Your task to perform on an android device: toggle sleep mode Image 0: 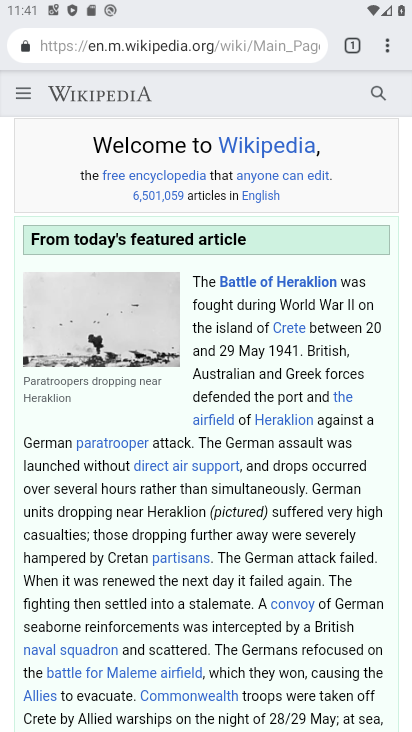
Step 0: press home button
Your task to perform on an android device: toggle sleep mode Image 1: 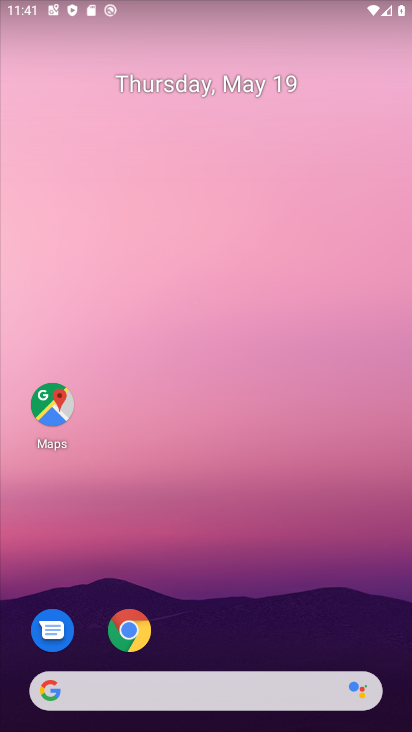
Step 1: drag from (254, 630) to (202, 176)
Your task to perform on an android device: toggle sleep mode Image 2: 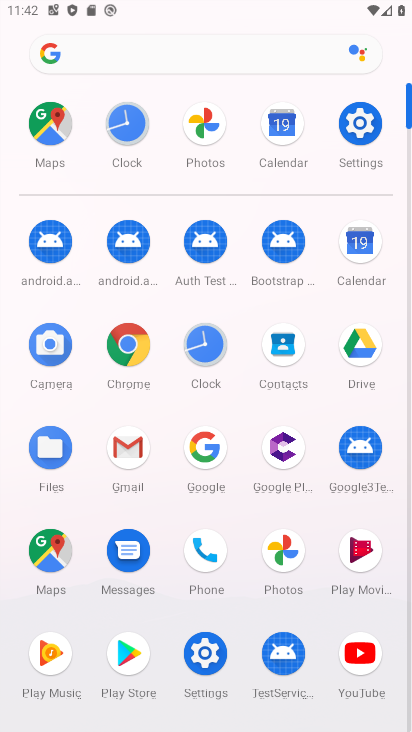
Step 2: click (359, 125)
Your task to perform on an android device: toggle sleep mode Image 3: 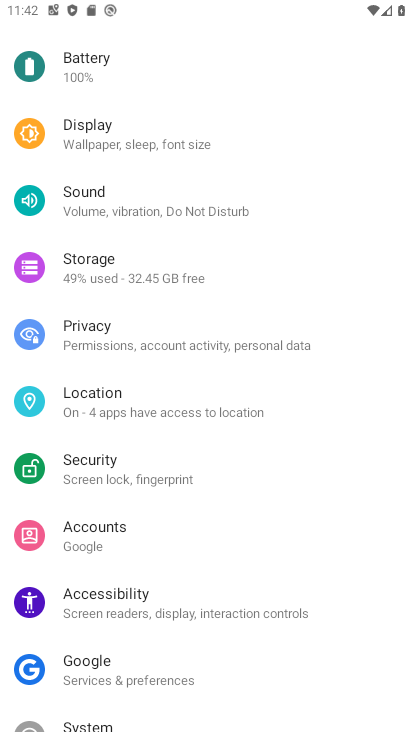
Step 3: drag from (148, 320) to (175, 402)
Your task to perform on an android device: toggle sleep mode Image 4: 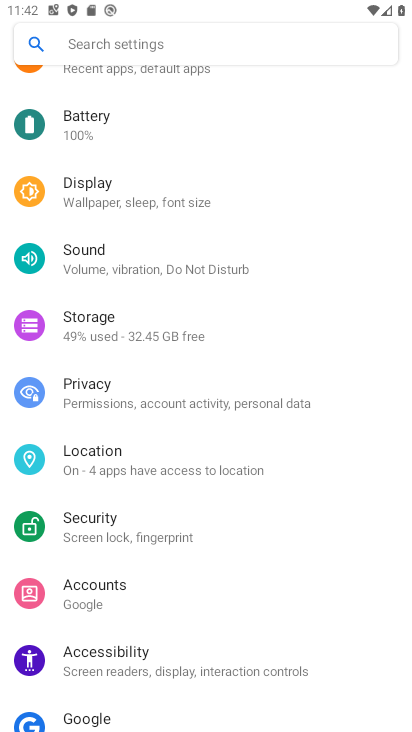
Step 4: drag from (155, 231) to (188, 422)
Your task to perform on an android device: toggle sleep mode Image 5: 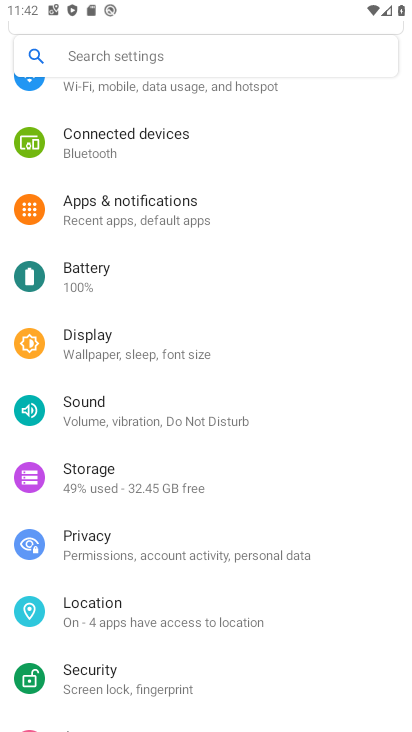
Step 5: drag from (152, 467) to (203, 374)
Your task to perform on an android device: toggle sleep mode Image 6: 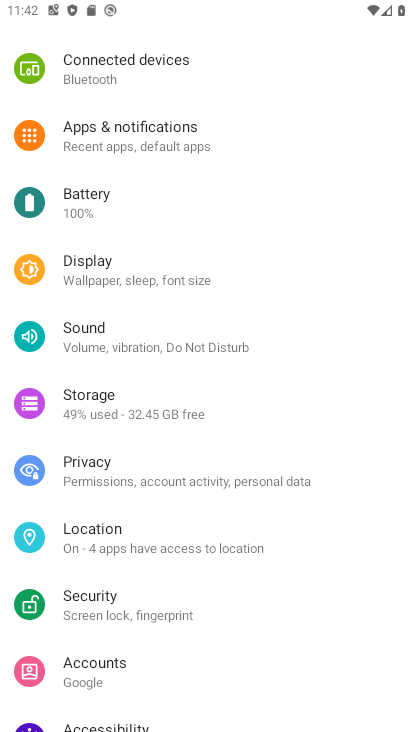
Step 6: drag from (165, 556) to (196, 484)
Your task to perform on an android device: toggle sleep mode Image 7: 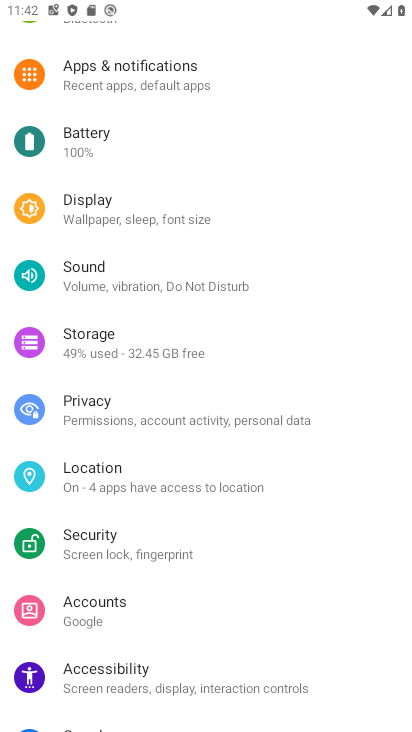
Step 7: click (180, 229)
Your task to perform on an android device: toggle sleep mode Image 8: 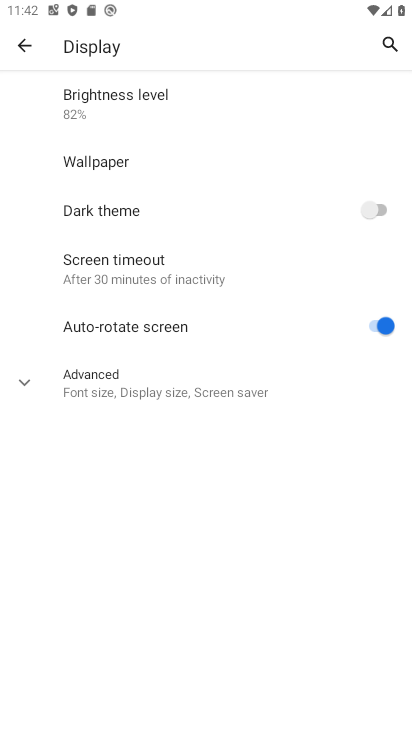
Step 8: task complete